Your task to perform on an android device: turn pop-ups on in chrome Image 0: 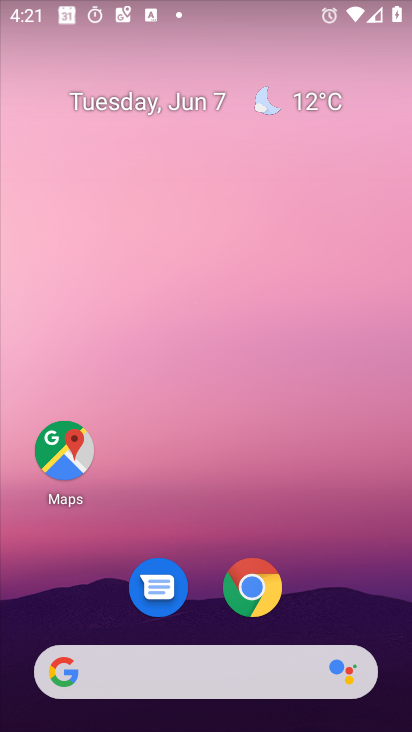
Step 0: drag from (264, 649) to (267, 16)
Your task to perform on an android device: turn pop-ups on in chrome Image 1: 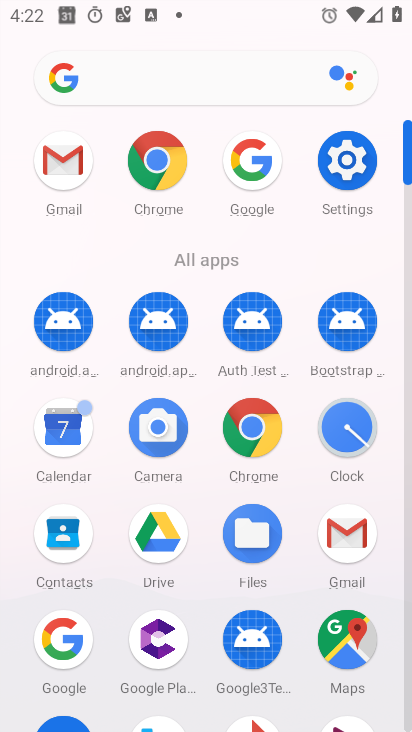
Step 1: click (174, 168)
Your task to perform on an android device: turn pop-ups on in chrome Image 2: 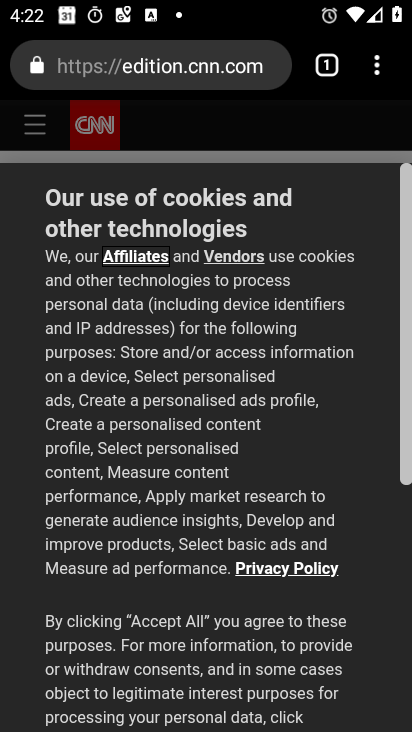
Step 2: click (385, 69)
Your task to perform on an android device: turn pop-ups on in chrome Image 3: 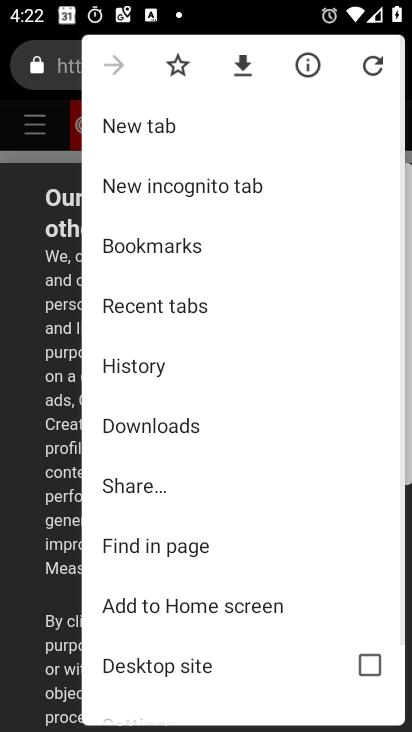
Step 3: drag from (253, 606) to (243, 363)
Your task to perform on an android device: turn pop-ups on in chrome Image 4: 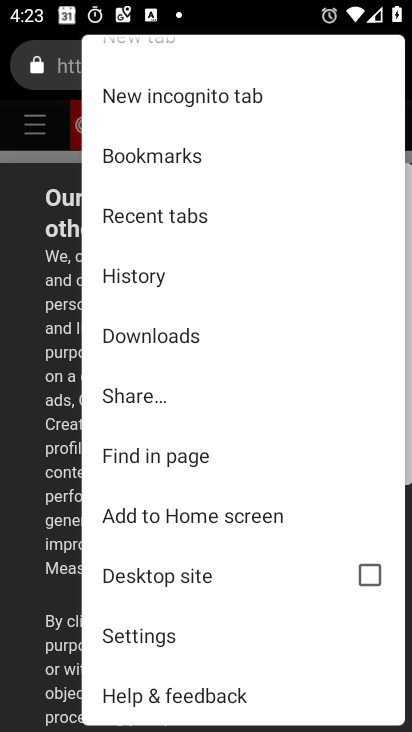
Step 4: click (140, 643)
Your task to perform on an android device: turn pop-ups on in chrome Image 5: 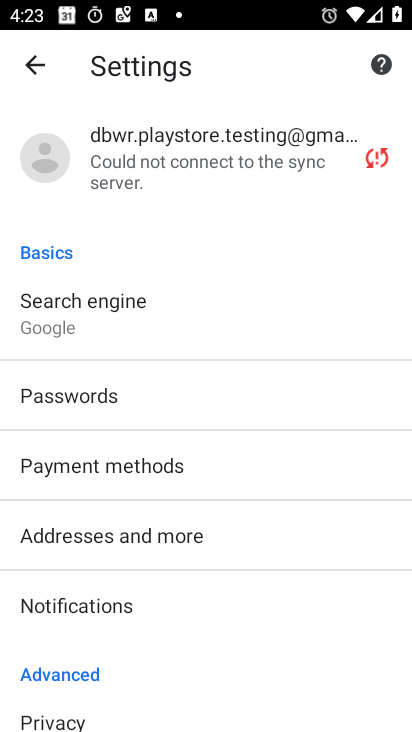
Step 5: drag from (145, 564) to (149, 219)
Your task to perform on an android device: turn pop-ups on in chrome Image 6: 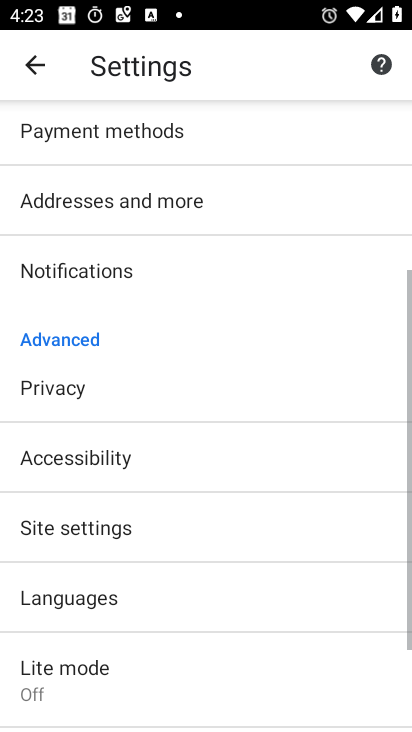
Step 6: click (138, 519)
Your task to perform on an android device: turn pop-ups on in chrome Image 7: 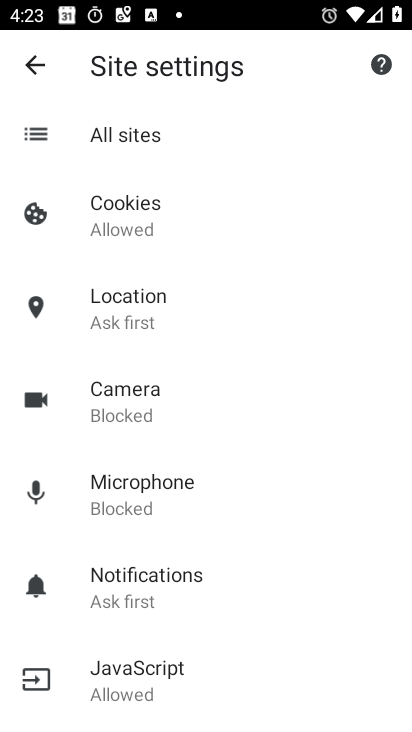
Step 7: drag from (223, 498) to (189, 115)
Your task to perform on an android device: turn pop-ups on in chrome Image 8: 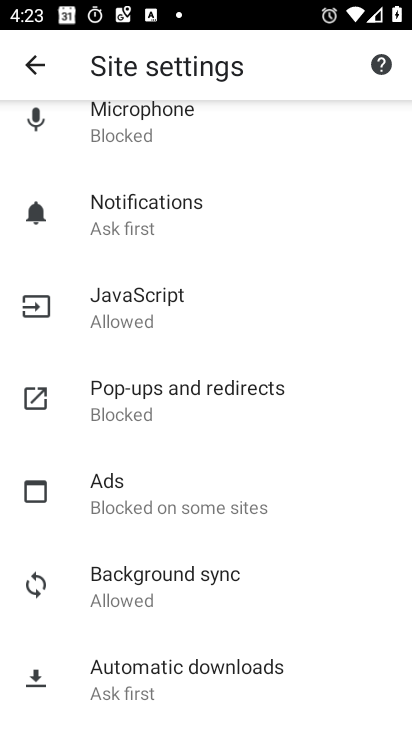
Step 8: click (192, 419)
Your task to perform on an android device: turn pop-ups on in chrome Image 9: 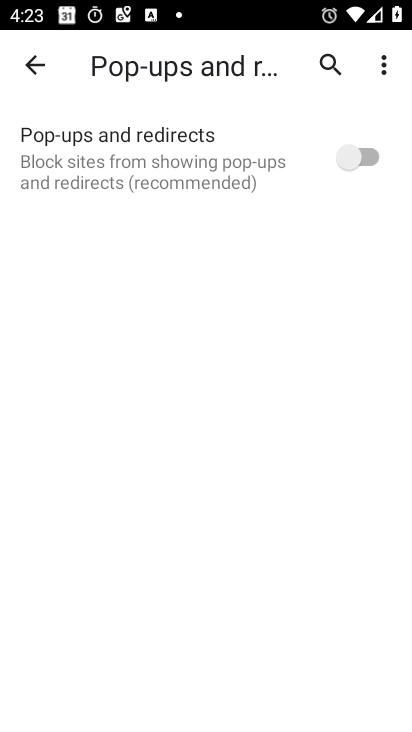
Step 9: click (353, 166)
Your task to perform on an android device: turn pop-ups on in chrome Image 10: 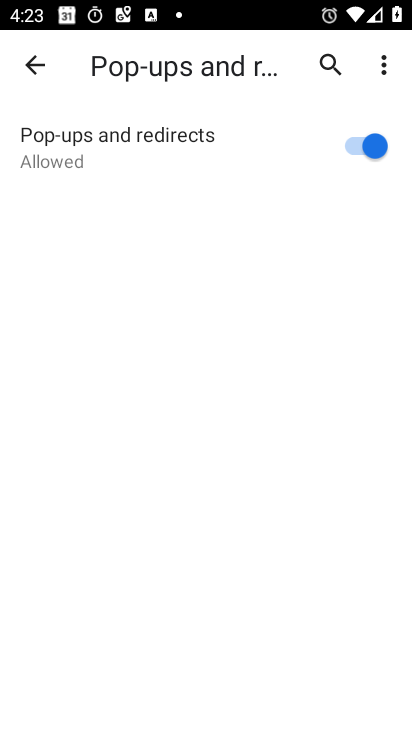
Step 10: task complete